Your task to perform on an android device: Open Android settings Image 0: 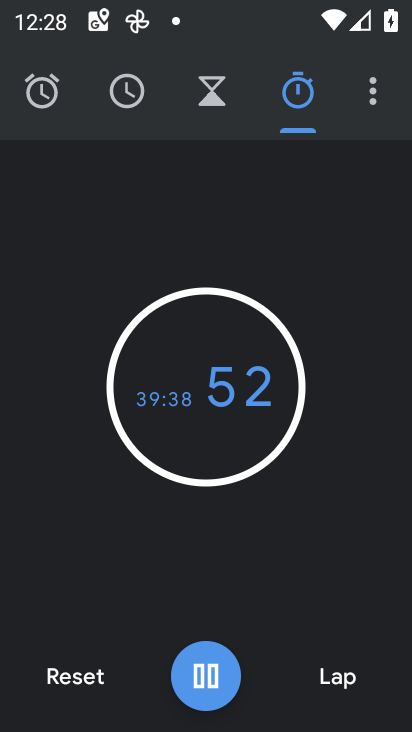
Step 0: press home button
Your task to perform on an android device: Open Android settings Image 1: 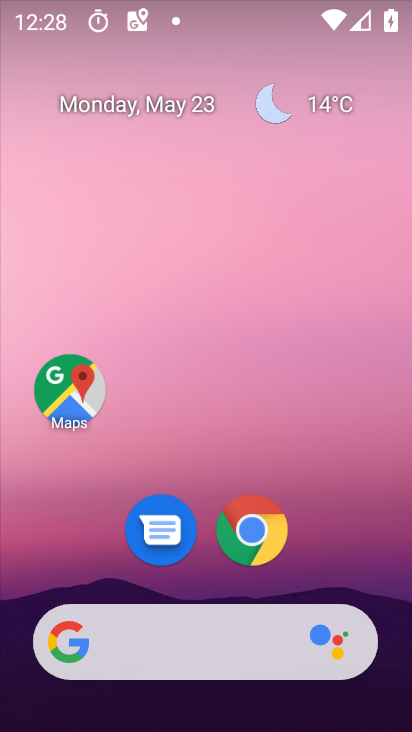
Step 1: drag from (390, 689) to (362, 276)
Your task to perform on an android device: Open Android settings Image 2: 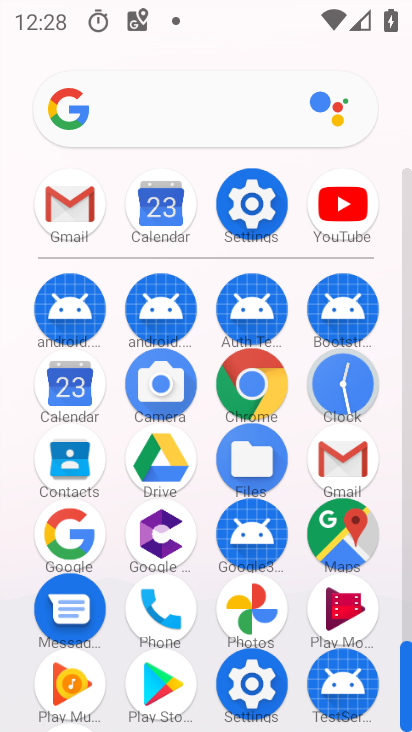
Step 2: click (247, 682)
Your task to perform on an android device: Open Android settings Image 3: 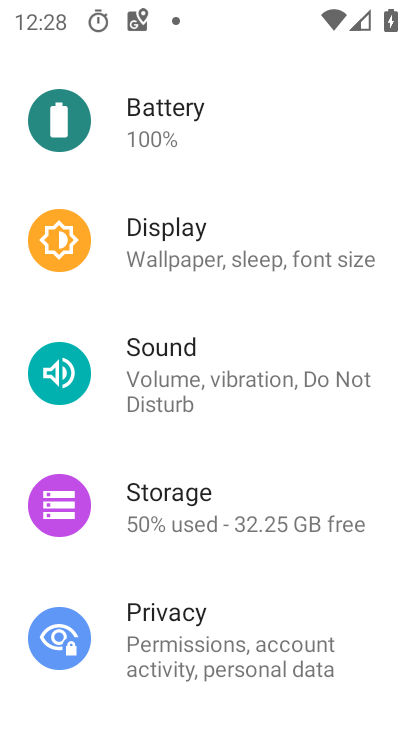
Step 3: task complete